Your task to perform on an android device: Go to eBay Image 0: 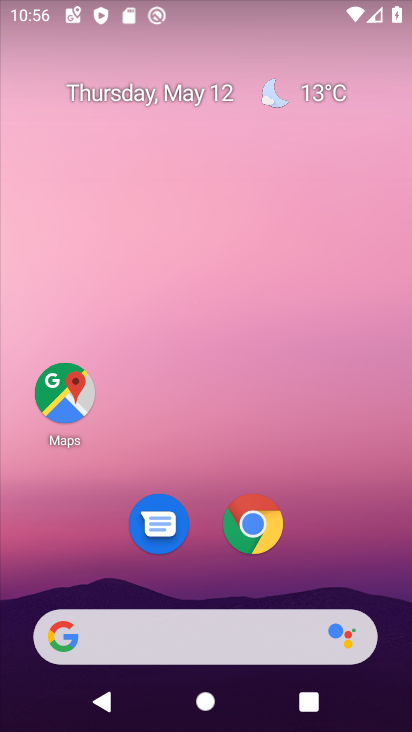
Step 0: click (191, 639)
Your task to perform on an android device: Go to eBay Image 1: 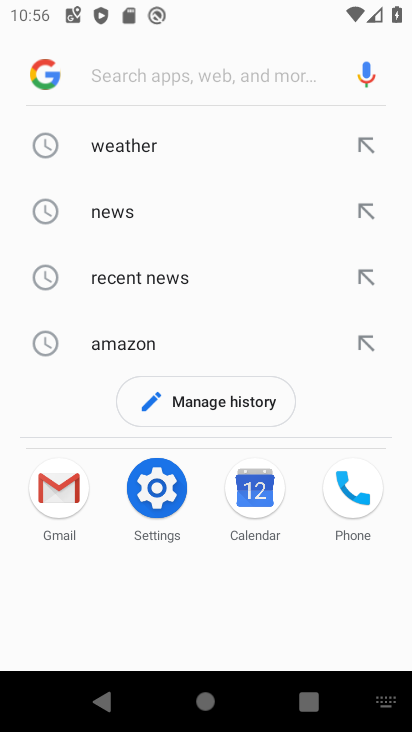
Step 1: type "ebay"
Your task to perform on an android device: Go to eBay Image 2: 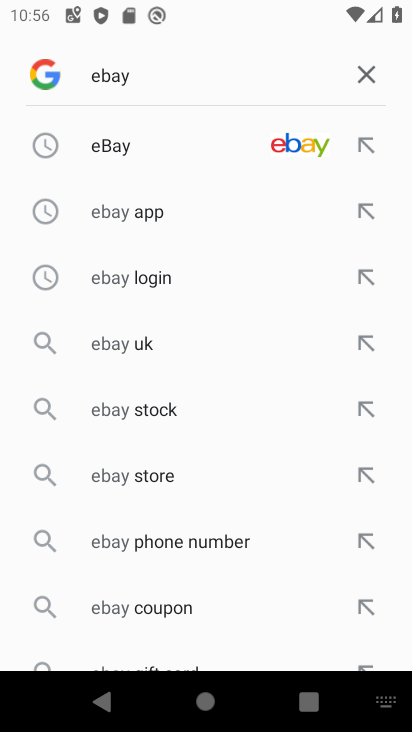
Step 2: click (112, 147)
Your task to perform on an android device: Go to eBay Image 3: 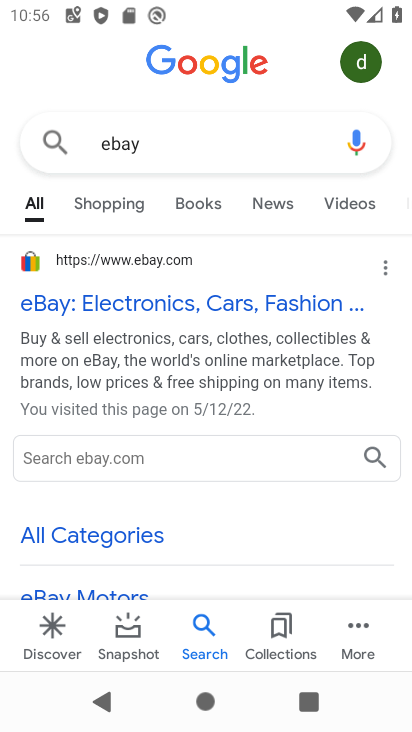
Step 3: click (103, 295)
Your task to perform on an android device: Go to eBay Image 4: 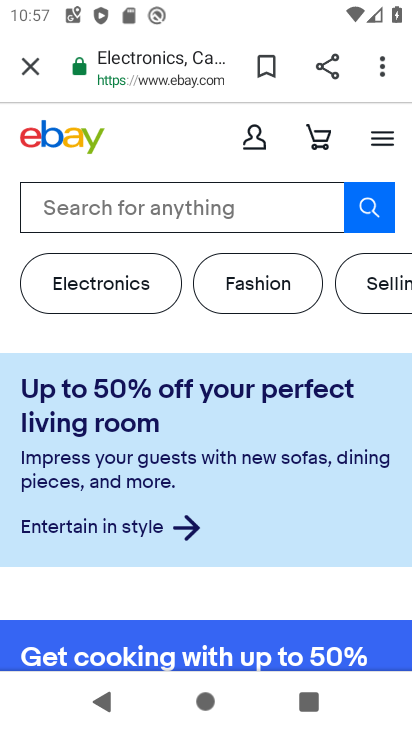
Step 4: task complete